Your task to perform on an android device: uninstall "Upside-Cash back on gas & food" Image 0: 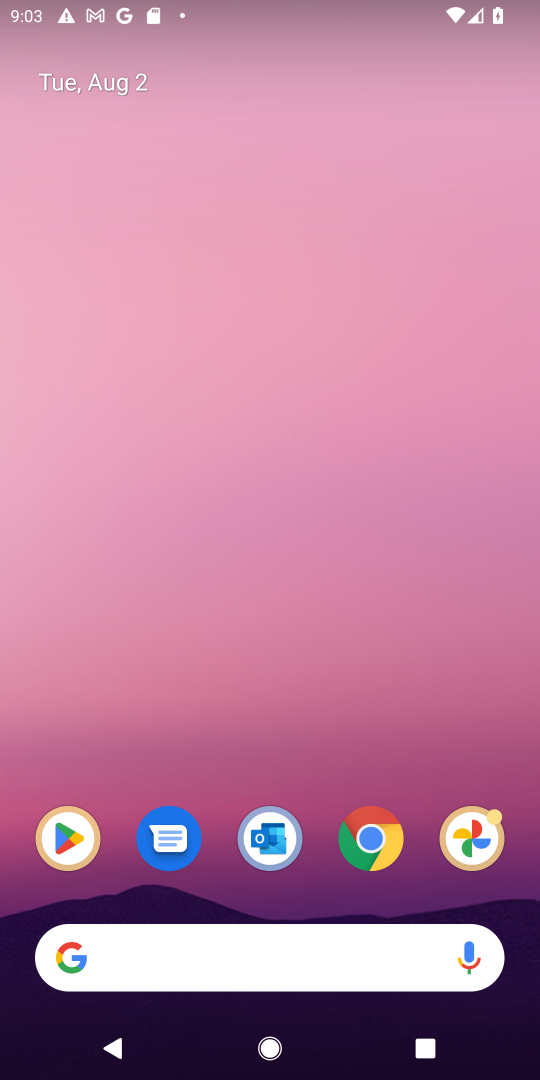
Step 0: press home button
Your task to perform on an android device: uninstall "Upside-Cash back on gas & food" Image 1: 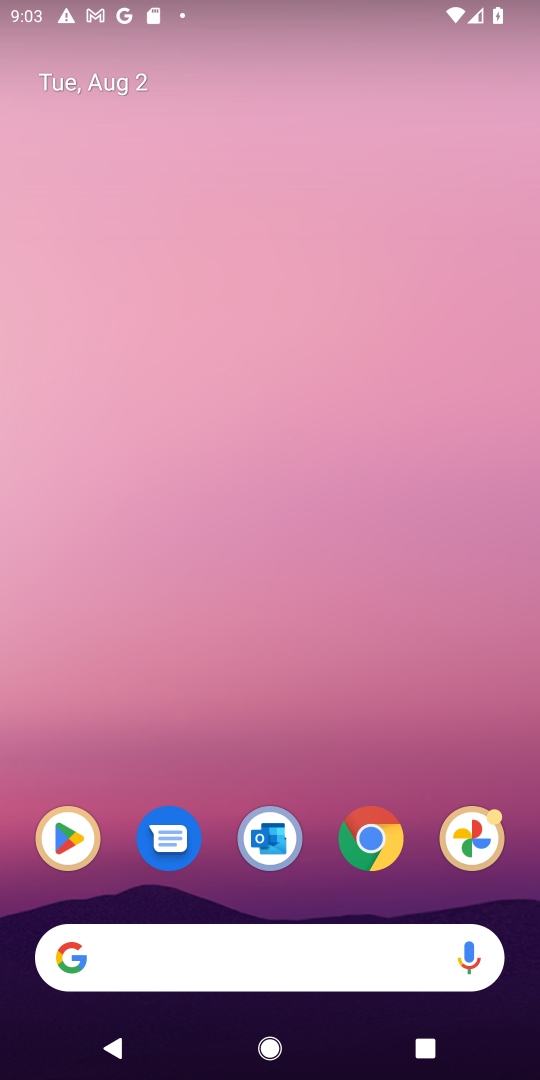
Step 1: drag from (321, 713) to (334, 67)
Your task to perform on an android device: uninstall "Upside-Cash back on gas & food" Image 2: 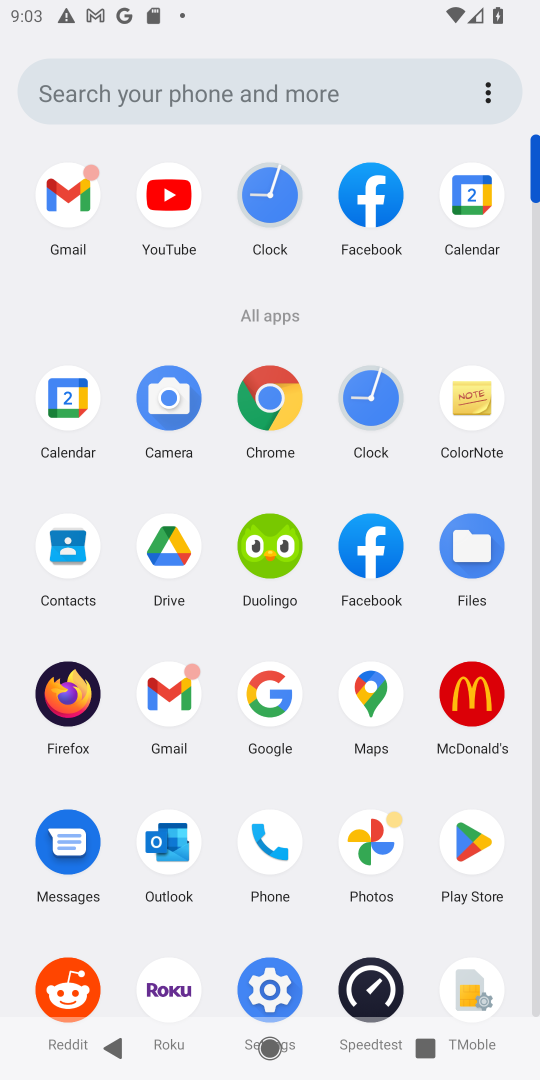
Step 2: click (476, 847)
Your task to perform on an android device: uninstall "Upside-Cash back on gas & food" Image 3: 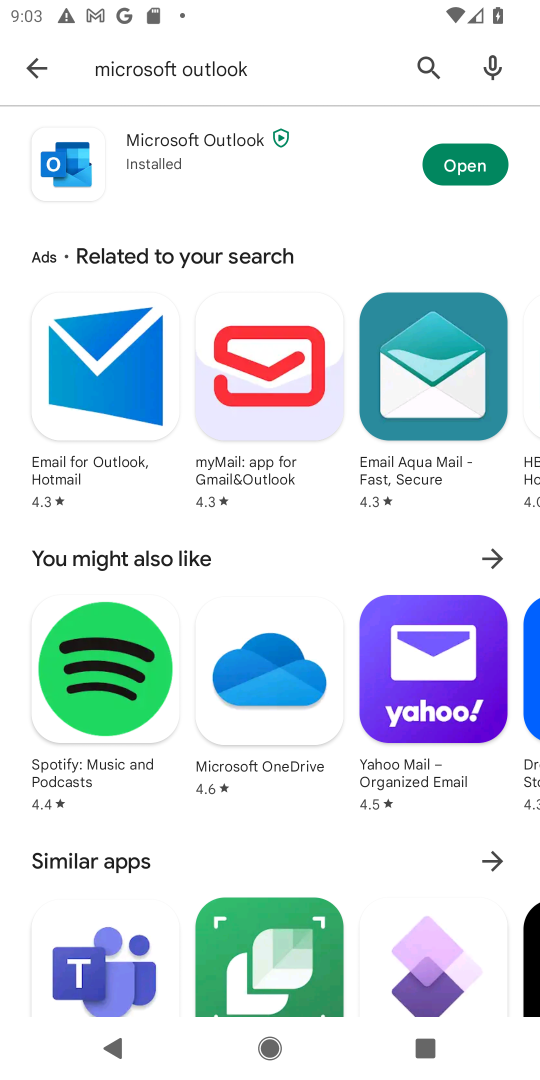
Step 3: click (425, 60)
Your task to perform on an android device: uninstall "Upside-Cash back on gas & food" Image 4: 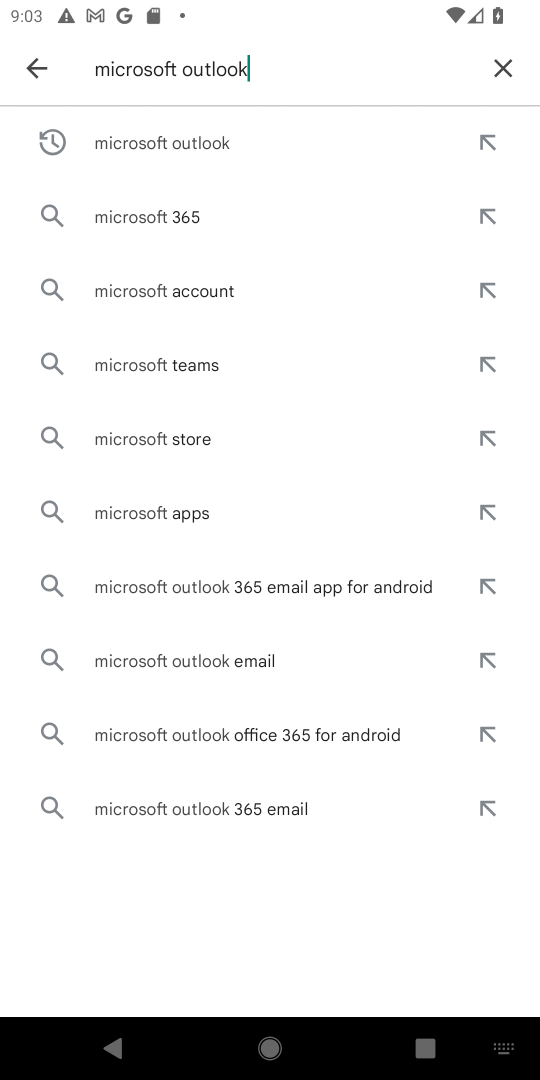
Step 4: click (486, 67)
Your task to perform on an android device: uninstall "Upside-Cash back on gas & food" Image 5: 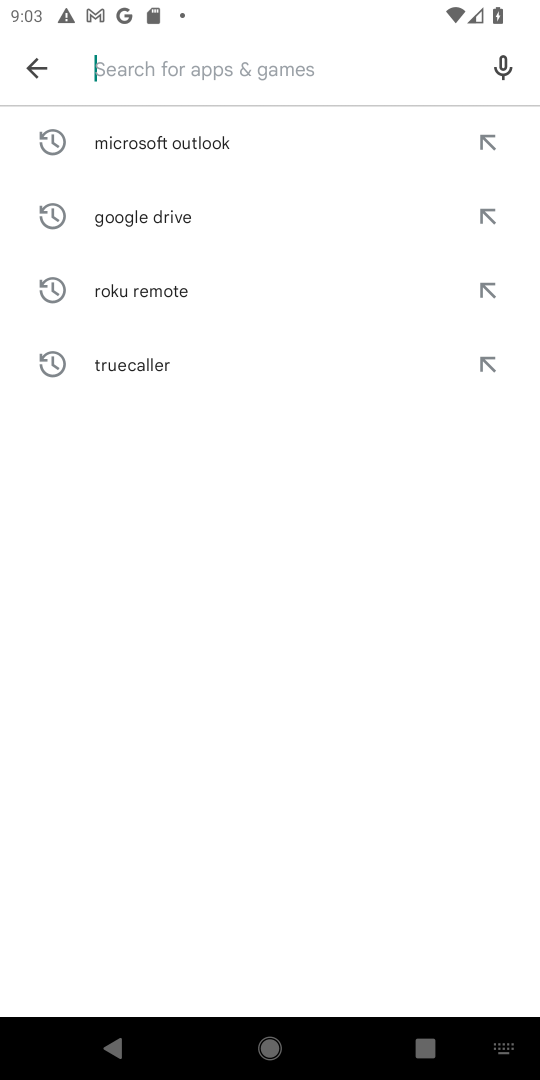
Step 5: click (379, 77)
Your task to perform on an android device: uninstall "Upside-Cash back on gas & food" Image 6: 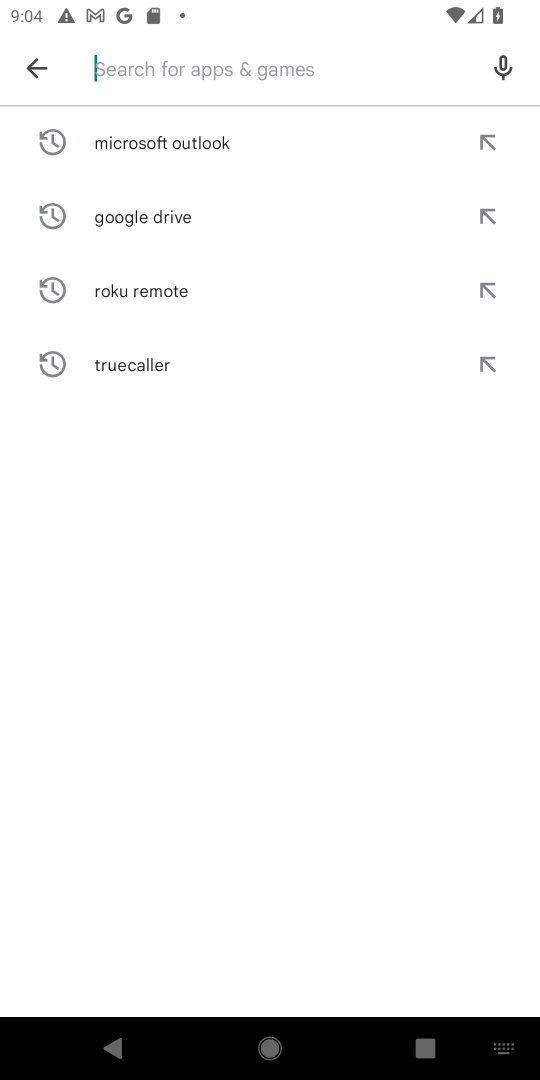
Step 6: type "Upside-Cash back on gas & food"
Your task to perform on an android device: uninstall "Upside-Cash back on gas & food" Image 7: 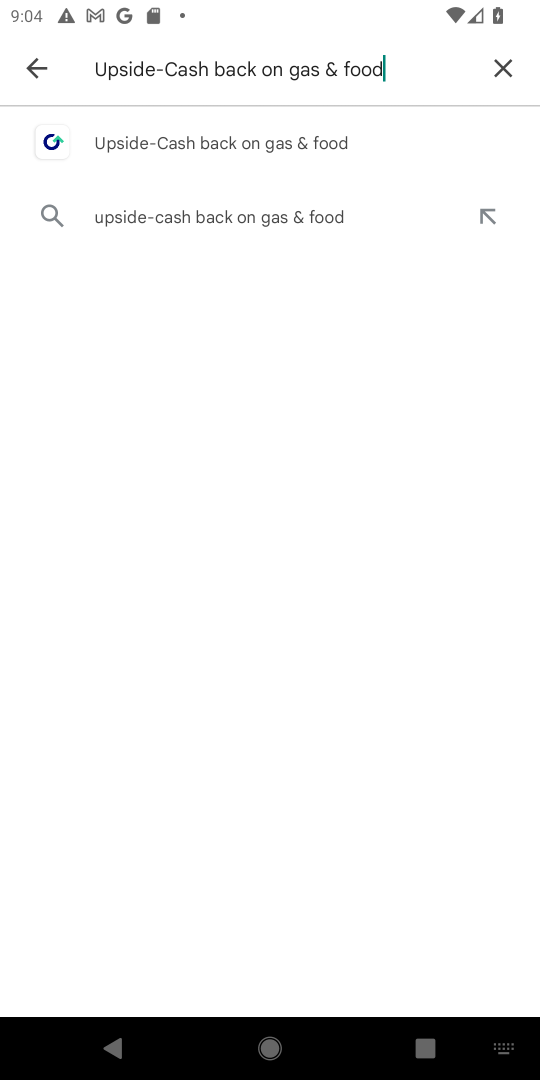
Step 7: click (329, 135)
Your task to perform on an android device: uninstall "Upside-Cash back on gas & food" Image 8: 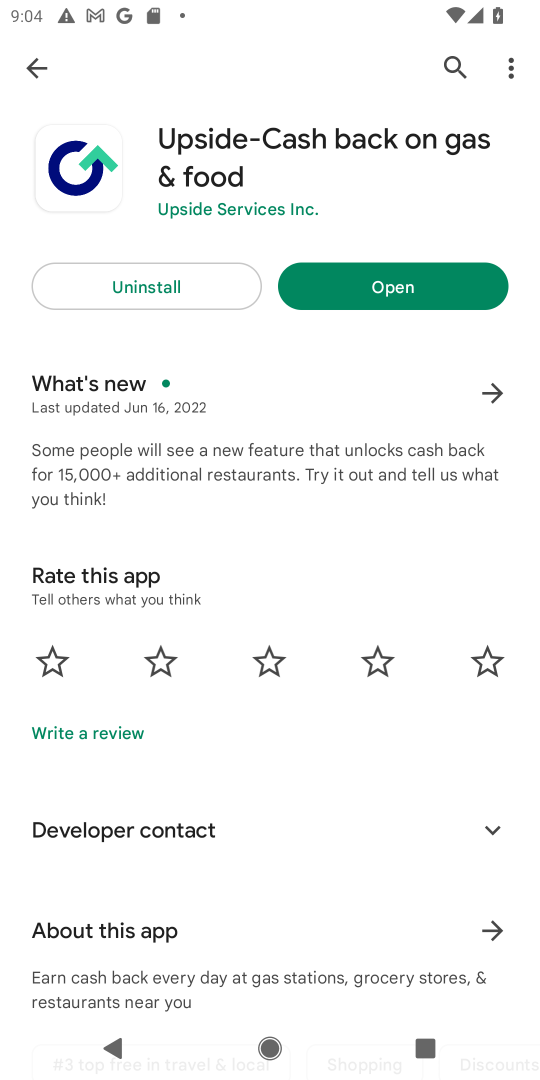
Step 8: click (176, 295)
Your task to perform on an android device: uninstall "Upside-Cash back on gas & food" Image 9: 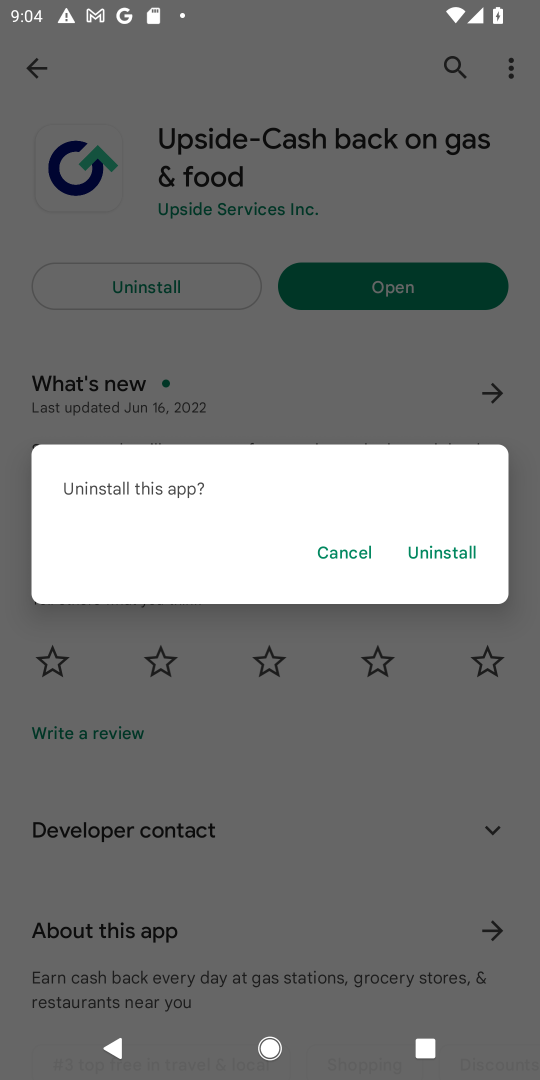
Step 9: click (455, 548)
Your task to perform on an android device: uninstall "Upside-Cash back on gas & food" Image 10: 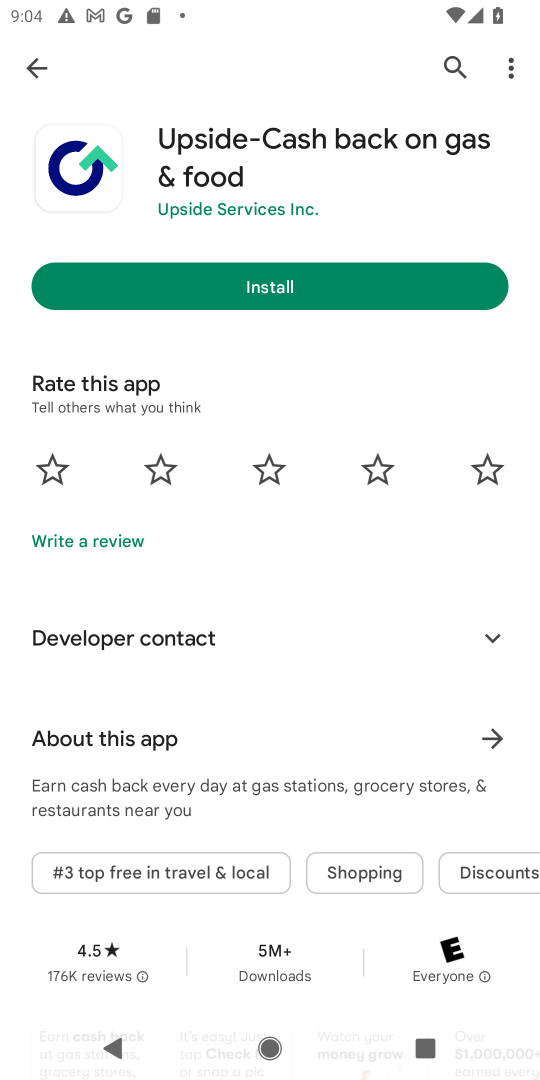
Step 10: task complete